Your task to perform on an android device: See recent photos Image 0: 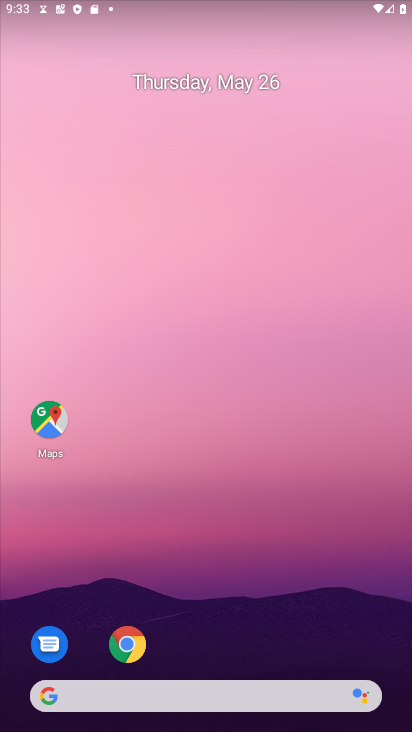
Step 0: click (210, 639)
Your task to perform on an android device: See recent photos Image 1: 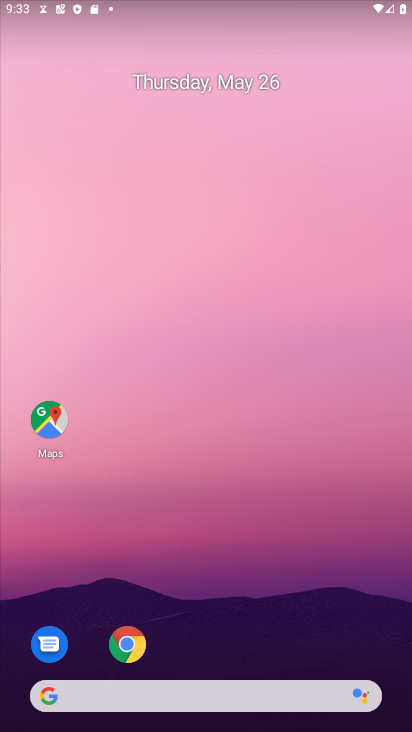
Step 1: drag from (210, 636) to (330, 110)
Your task to perform on an android device: See recent photos Image 2: 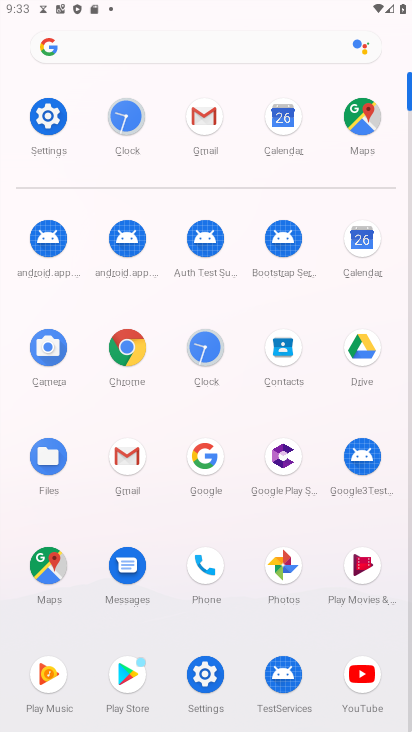
Step 2: click (278, 562)
Your task to perform on an android device: See recent photos Image 3: 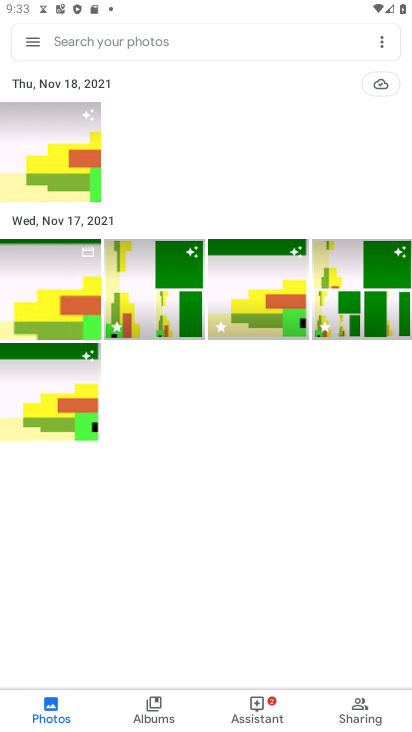
Step 3: click (49, 704)
Your task to perform on an android device: See recent photos Image 4: 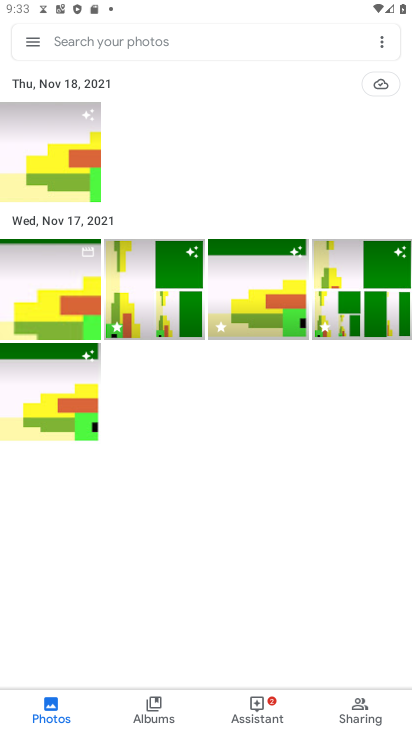
Step 4: task complete